Your task to perform on an android device: remove spam from my inbox in the gmail app Image 0: 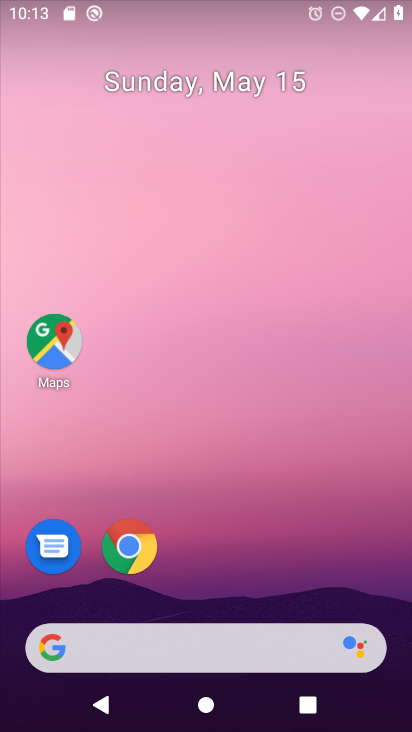
Step 0: drag from (248, 571) to (327, 92)
Your task to perform on an android device: remove spam from my inbox in the gmail app Image 1: 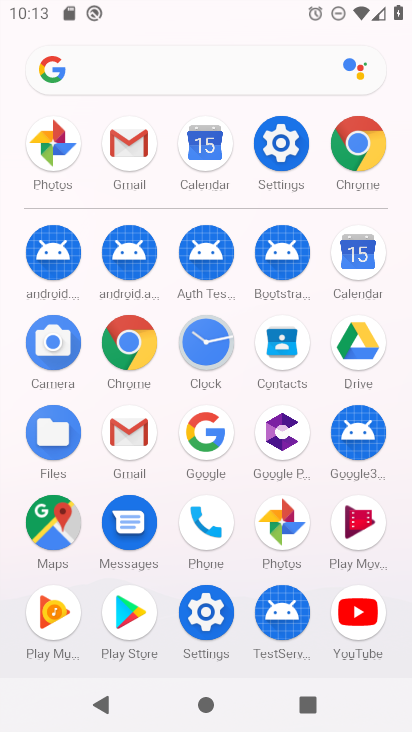
Step 1: click (129, 436)
Your task to perform on an android device: remove spam from my inbox in the gmail app Image 2: 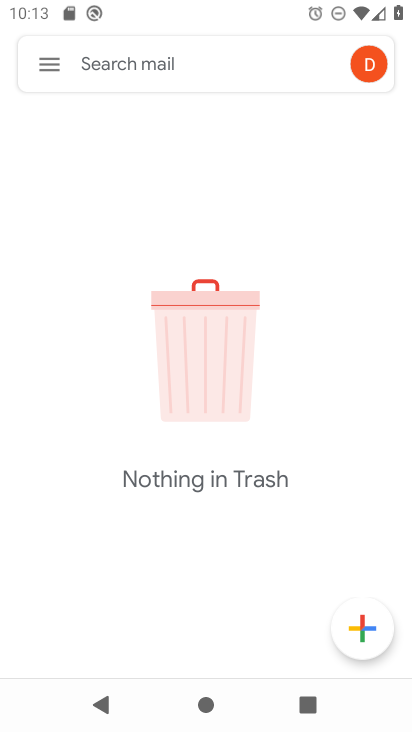
Step 2: click (50, 68)
Your task to perform on an android device: remove spam from my inbox in the gmail app Image 3: 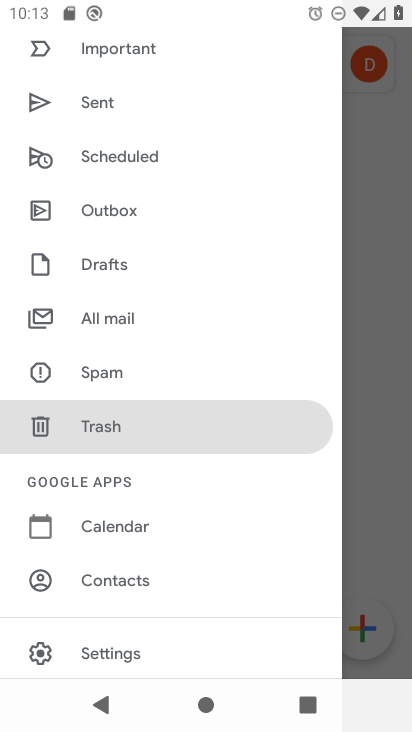
Step 3: click (118, 354)
Your task to perform on an android device: remove spam from my inbox in the gmail app Image 4: 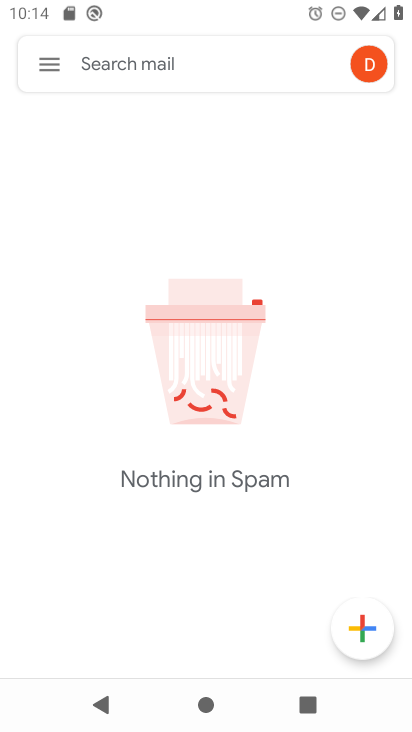
Step 4: task complete